Your task to perform on an android device: What's on my calendar tomorrow? Image 0: 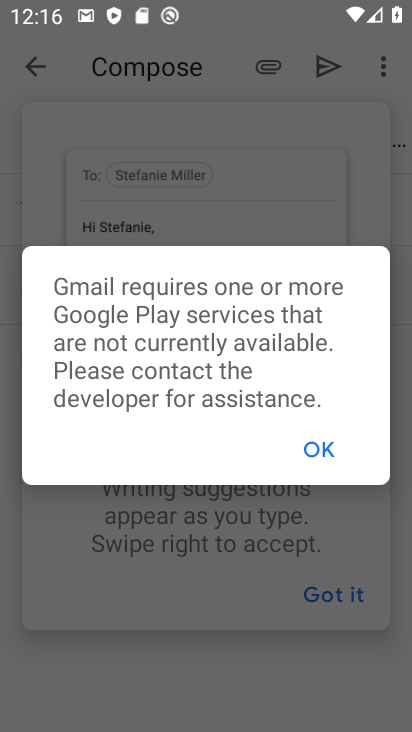
Step 0: press home button
Your task to perform on an android device: What's on my calendar tomorrow? Image 1: 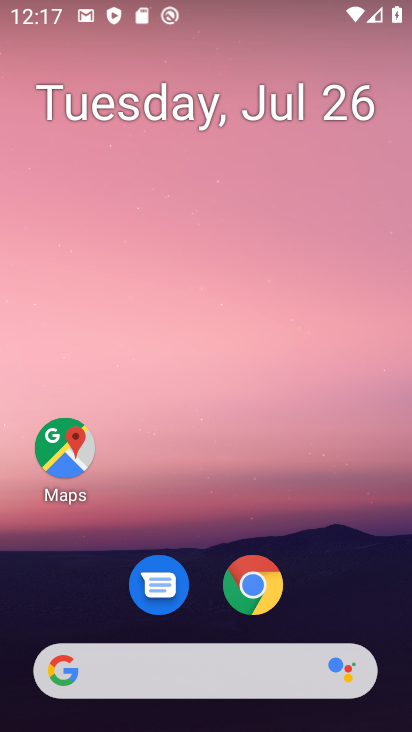
Step 1: drag from (202, 585) to (319, 132)
Your task to perform on an android device: What's on my calendar tomorrow? Image 2: 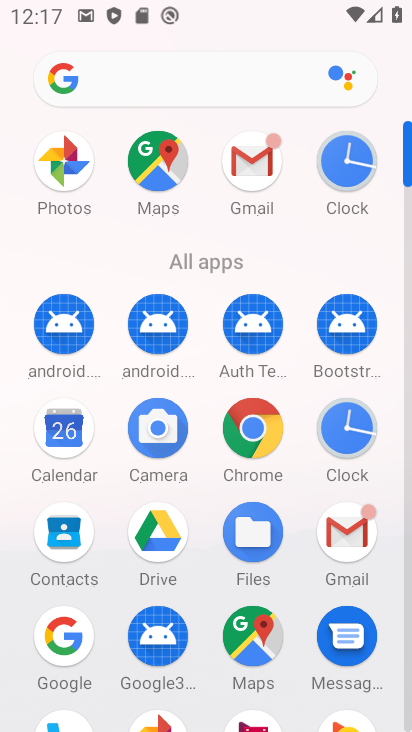
Step 2: click (69, 429)
Your task to perform on an android device: What's on my calendar tomorrow? Image 3: 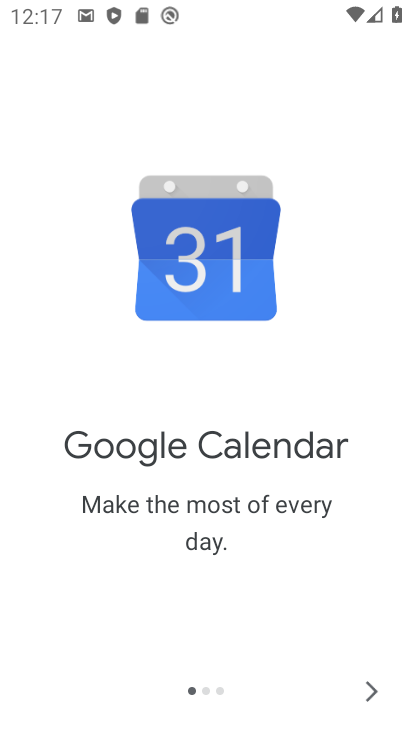
Step 3: click (371, 686)
Your task to perform on an android device: What's on my calendar tomorrow? Image 4: 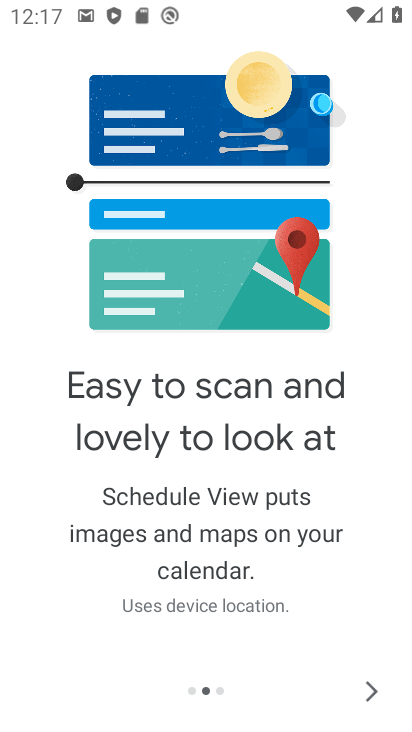
Step 4: click (371, 687)
Your task to perform on an android device: What's on my calendar tomorrow? Image 5: 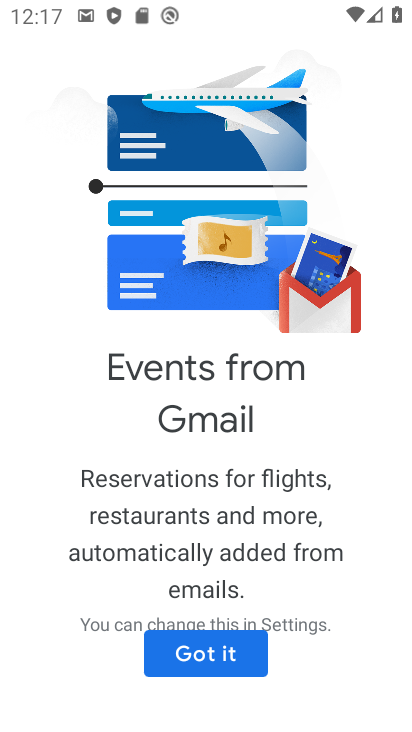
Step 5: click (212, 660)
Your task to perform on an android device: What's on my calendar tomorrow? Image 6: 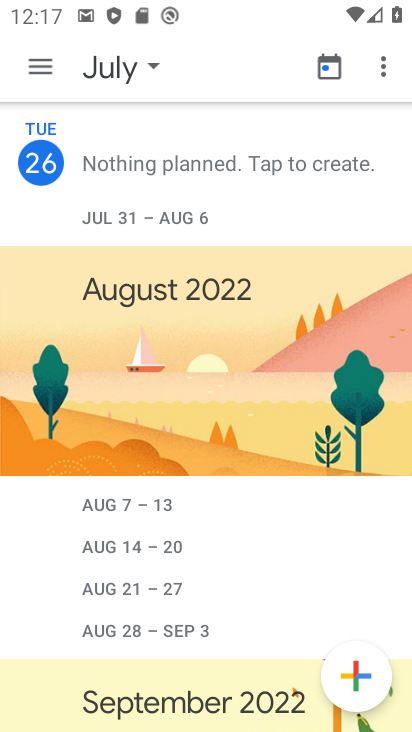
Step 6: click (126, 73)
Your task to perform on an android device: What's on my calendar tomorrow? Image 7: 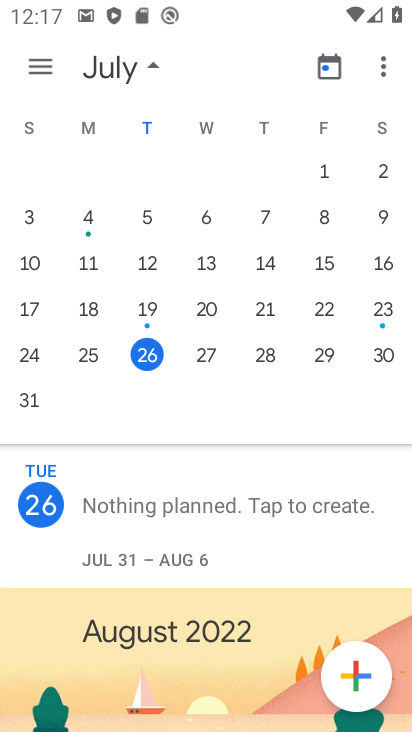
Step 7: click (208, 358)
Your task to perform on an android device: What's on my calendar tomorrow? Image 8: 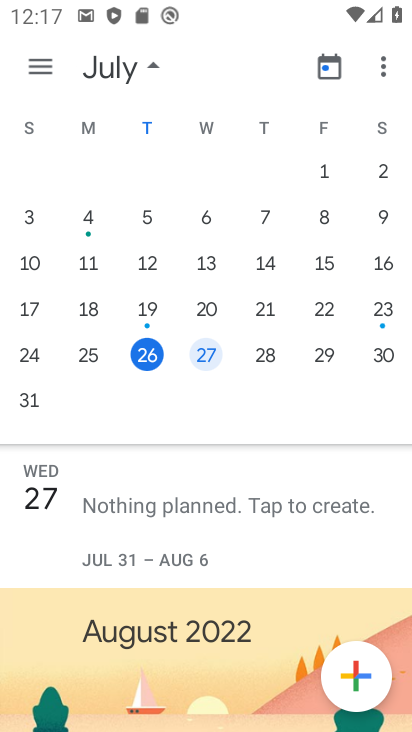
Step 8: click (42, 72)
Your task to perform on an android device: What's on my calendar tomorrow? Image 9: 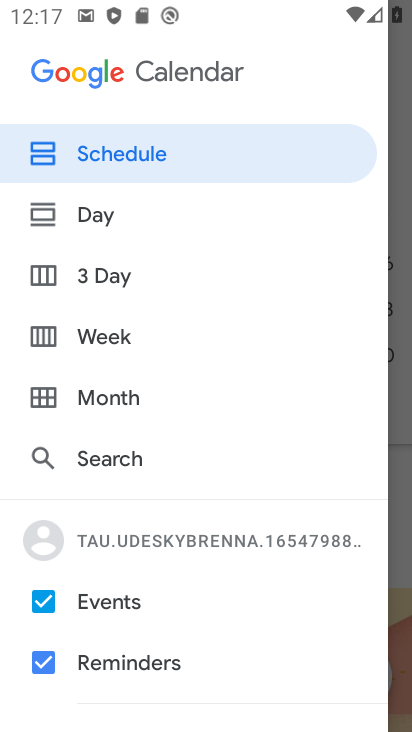
Step 9: click (101, 215)
Your task to perform on an android device: What's on my calendar tomorrow? Image 10: 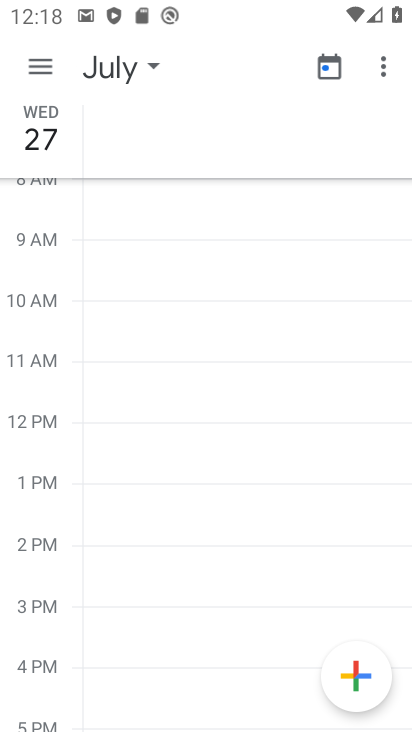
Step 10: click (37, 57)
Your task to perform on an android device: What's on my calendar tomorrow? Image 11: 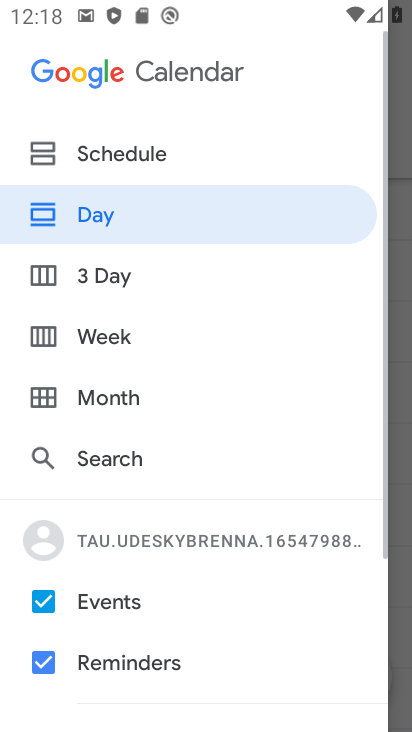
Step 11: click (141, 155)
Your task to perform on an android device: What's on my calendar tomorrow? Image 12: 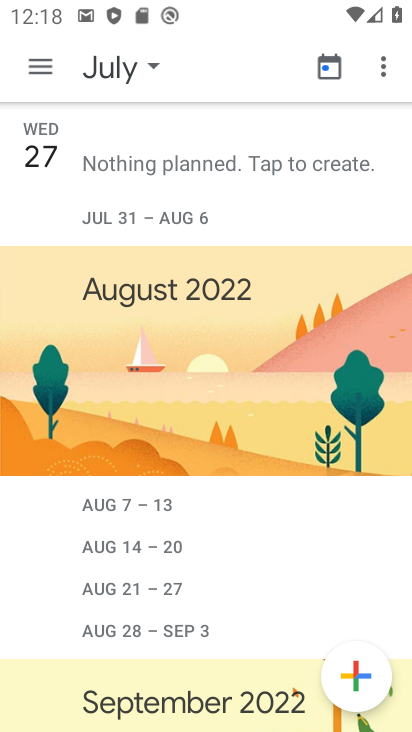
Step 12: task complete